Your task to perform on an android device: Check the news Image 0: 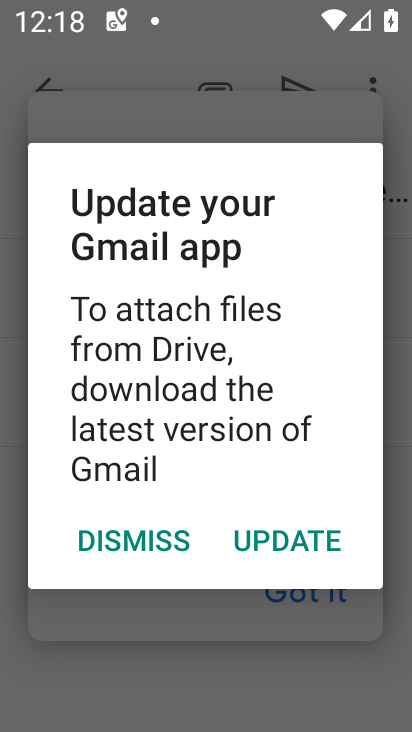
Step 0: press home button
Your task to perform on an android device: Check the news Image 1: 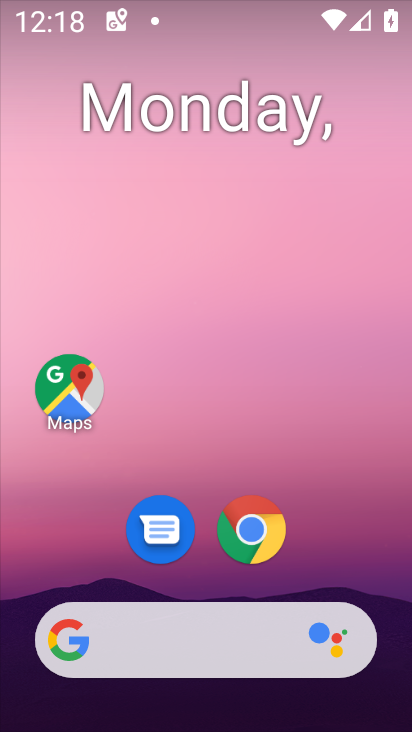
Step 1: task complete